Your task to perform on an android device: change timer sound Image 0: 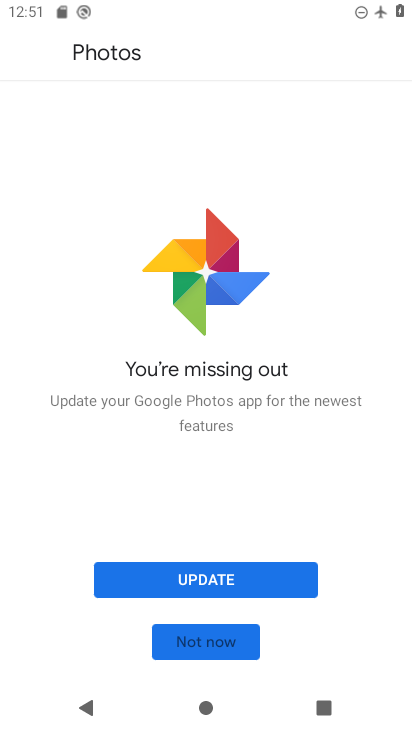
Step 0: press home button
Your task to perform on an android device: change timer sound Image 1: 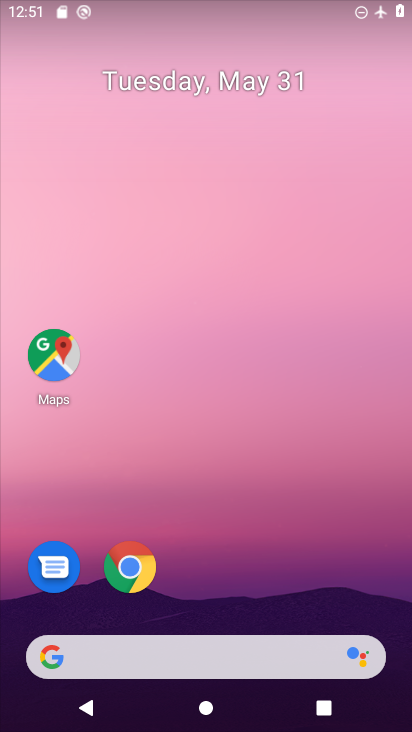
Step 1: drag from (204, 618) to (208, 177)
Your task to perform on an android device: change timer sound Image 2: 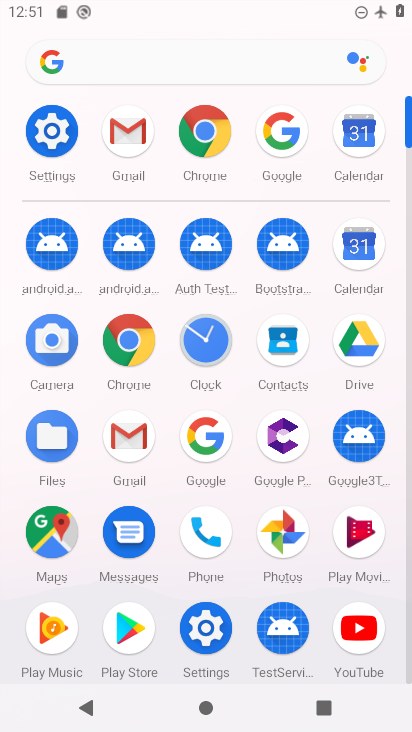
Step 2: click (206, 356)
Your task to perform on an android device: change timer sound Image 3: 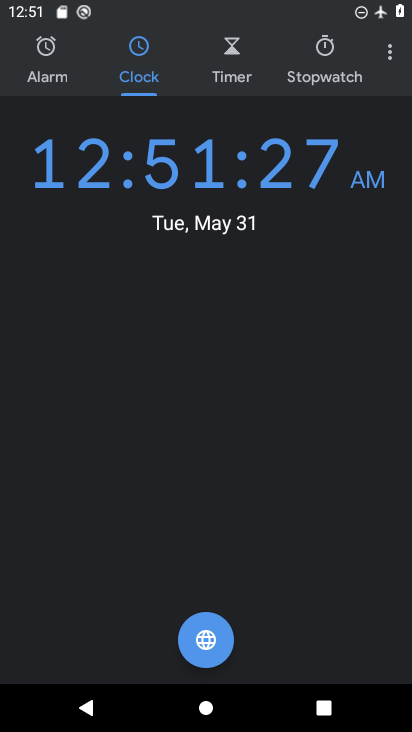
Step 3: click (383, 66)
Your task to perform on an android device: change timer sound Image 4: 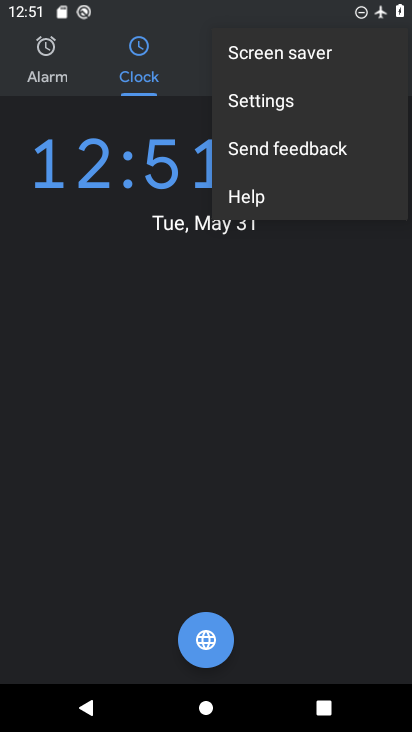
Step 4: click (244, 92)
Your task to perform on an android device: change timer sound Image 5: 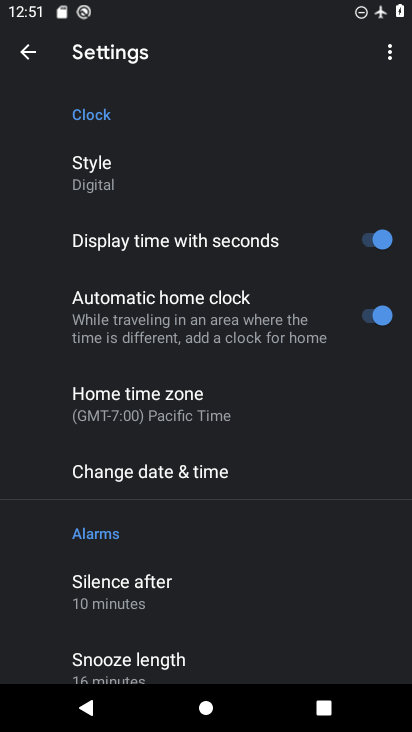
Step 5: drag from (219, 612) to (236, 213)
Your task to perform on an android device: change timer sound Image 6: 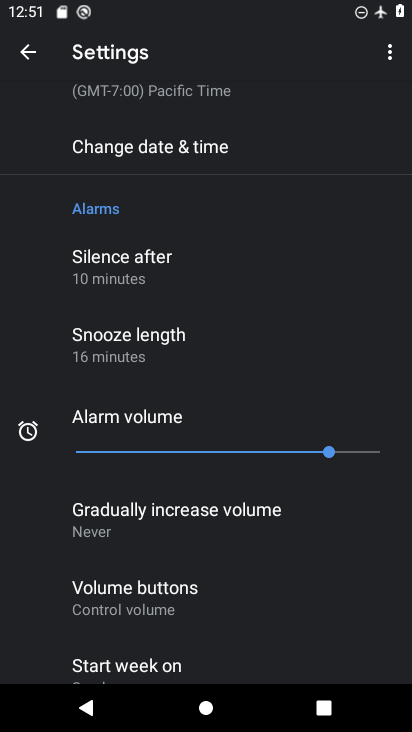
Step 6: drag from (261, 551) to (265, 339)
Your task to perform on an android device: change timer sound Image 7: 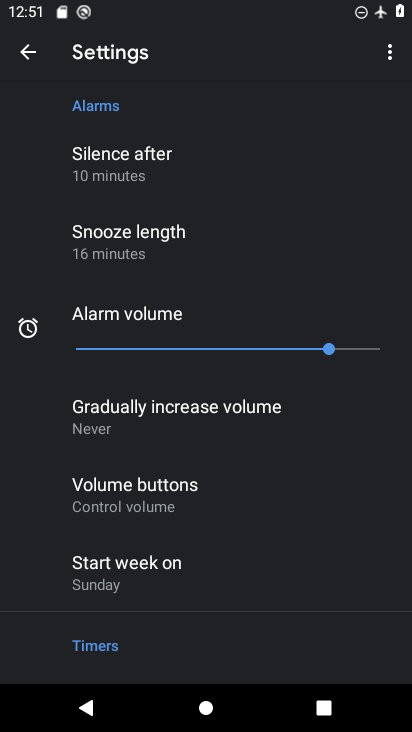
Step 7: drag from (253, 596) to (255, 266)
Your task to perform on an android device: change timer sound Image 8: 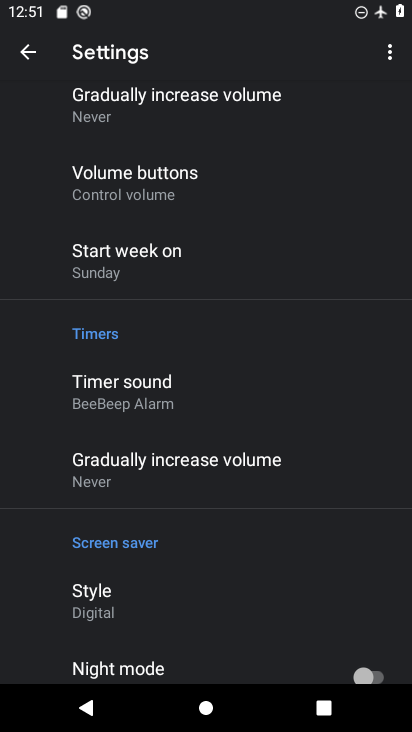
Step 8: click (212, 403)
Your task to perform on an android device: change timer sound Image 9: 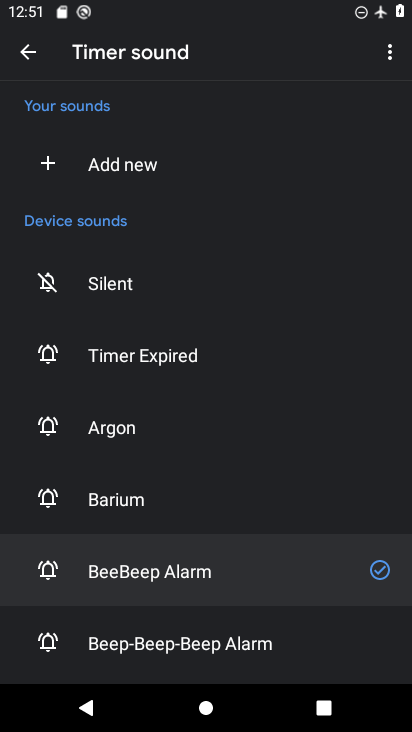
Step 9: click (199, 455)
Your task to perform on an android device: change timer sound Image 10: 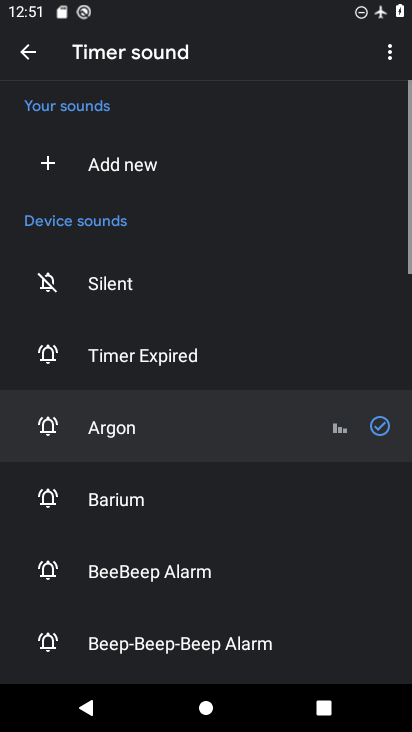
Step 10: task complete